Your task to perform on an android device: turn on airplane mode Image 0: 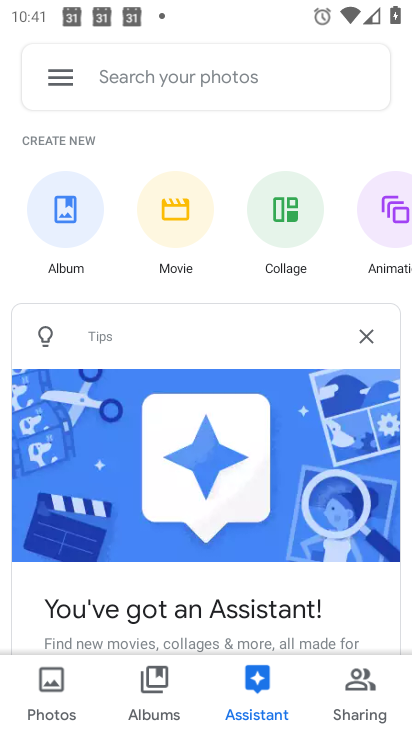
Step 0: press home button
Your task to perform on an android device: turn on airplane mode Image 1: 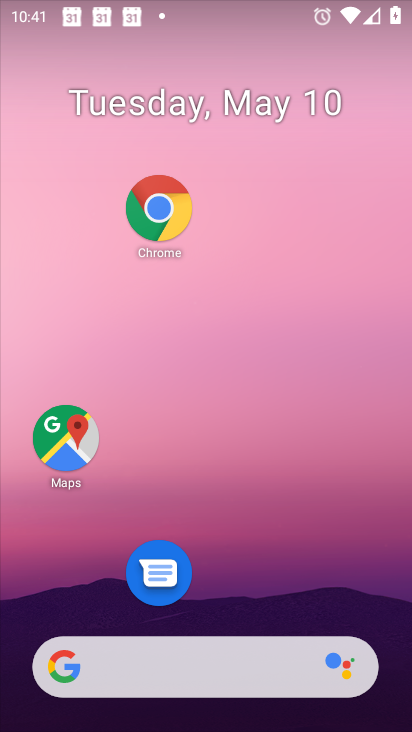
Step 1: drag from (215, 703) to (279, 168)
Your task to perform on an android device: turn on airplane mode Image 2: 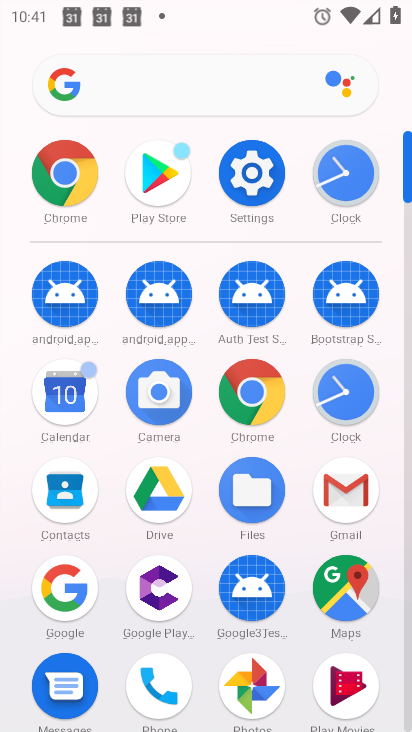
Step 2: click (253, 178)
Your task to perform on an android device: turn on airplane mode Image 3: 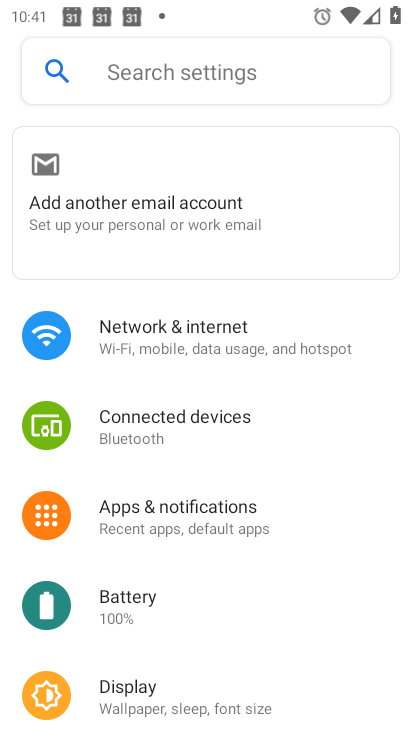
Step 3: click (203, 337)
Your task to perform on an android device: turn on airplane mode Image 4: 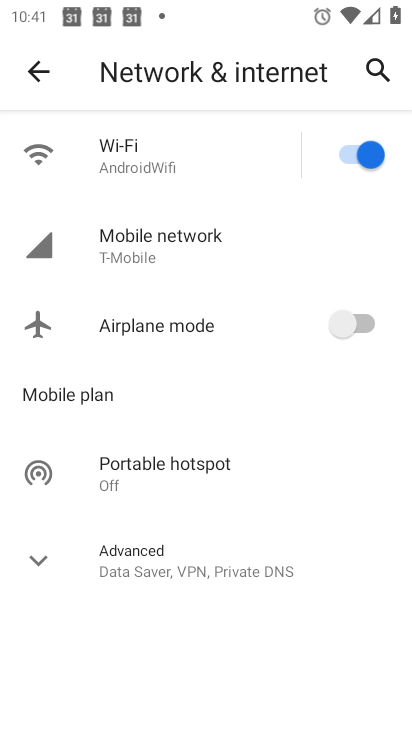
Step 4: click (204, 329)
Your task to perform on an android device: turn on airplane mode Image 5: 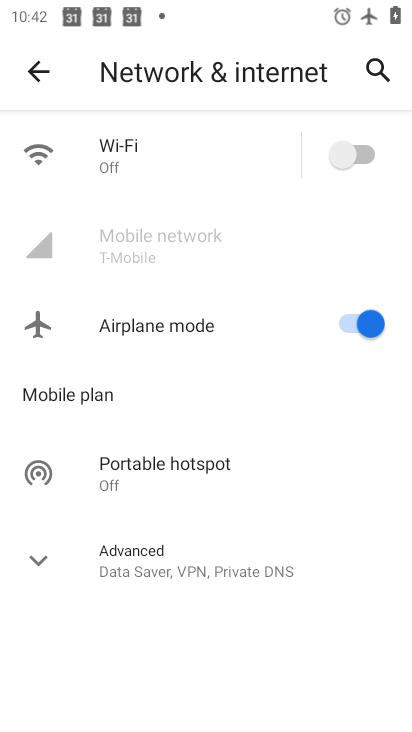
Step 5: task complete